Your task to perform on an android device: Search for vegetarian restaurants on Maps Image 0: 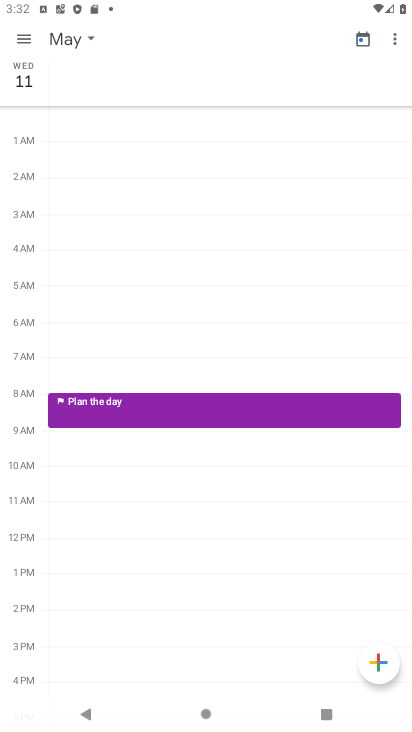
Step 0: press home button
Your task to perform on an android device: Search for vegetarian restaurants on Maps Image 1: 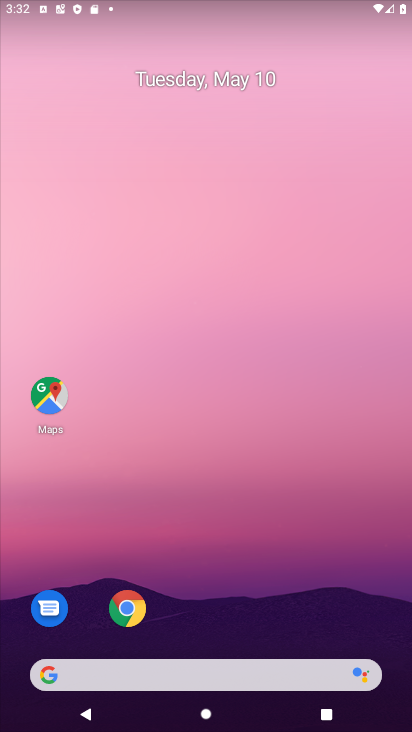
Step 1: click (46, 394)
Your task to perform on an android device: Search for vegetarian restaurants on Maps Image 2: 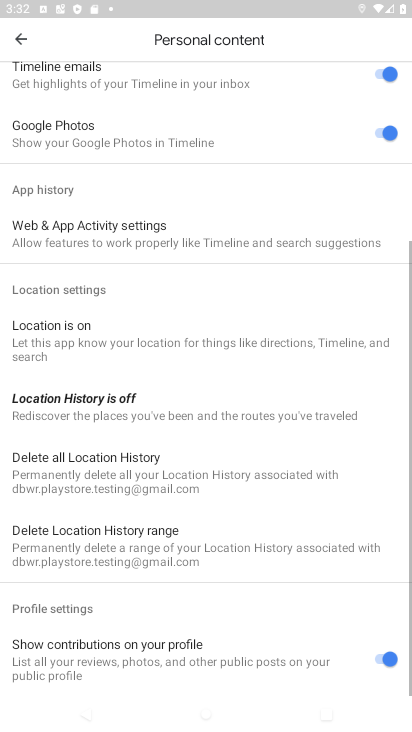
Step 2: press back button
Your task to perform on an android device: Search for vegetarian restaurants on Maps Image 3: 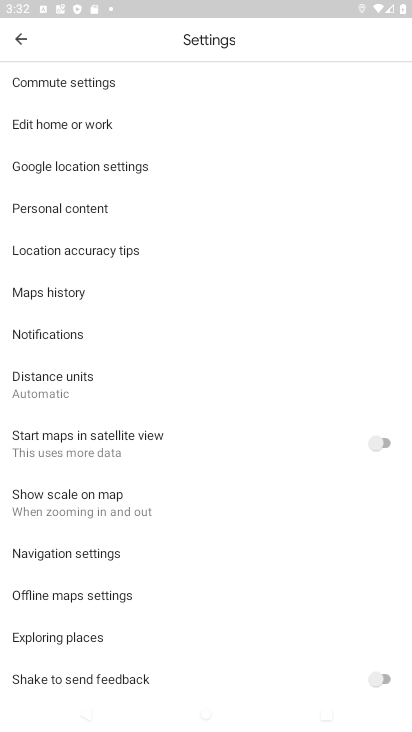
Step 3: press back button
Your task to perform on an android device: Search for vegetarian restaurants on Maps Image 4: 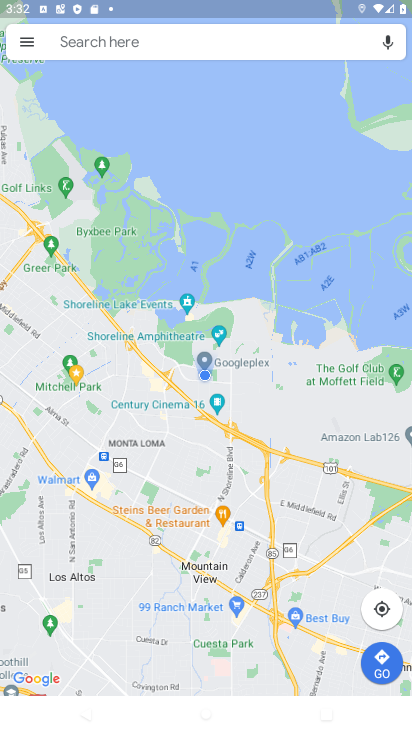
Step 4: click (92, 40)
Your task to perform on an android device: Search for vegetarian restaurants on Maps Image 5: 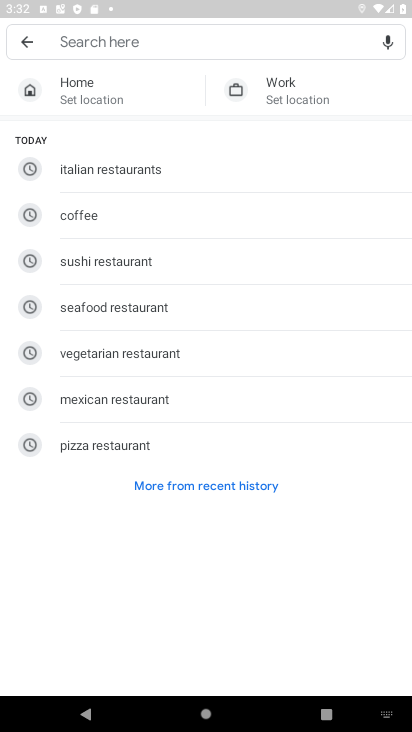
Step 5: type "vegetarian restaurants"
Your task to perform on an android device: Search for vegetarian restaurants on Maps Image 6: 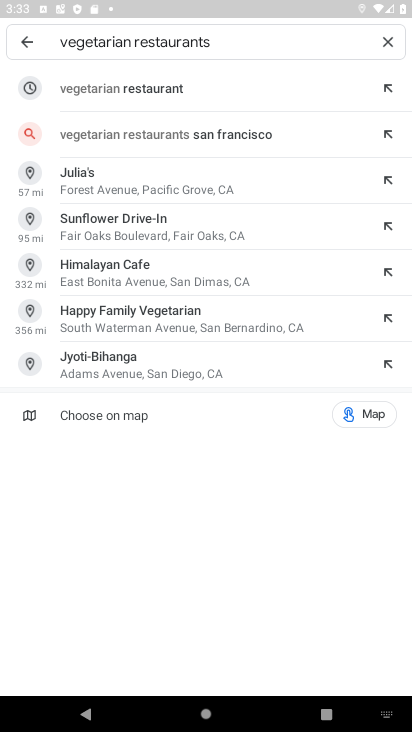
Step 6: click (109, 87)
Your task to perform on an android device: Search for vegetarian restaurants on Maps Image 7: 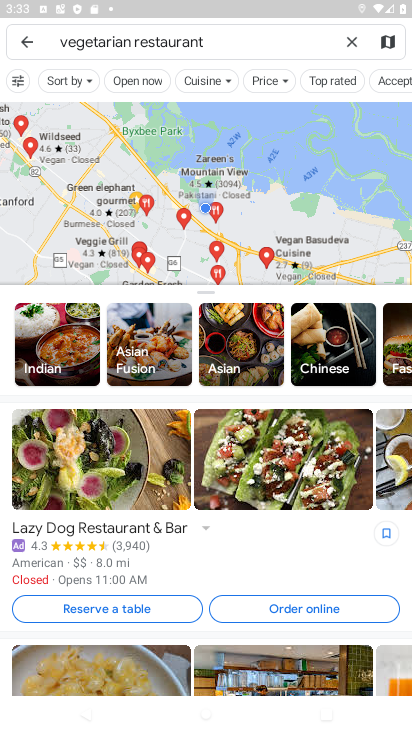
Step 7: task complete